Your task to perform on an android device: Turn off the flashlight Image 0: 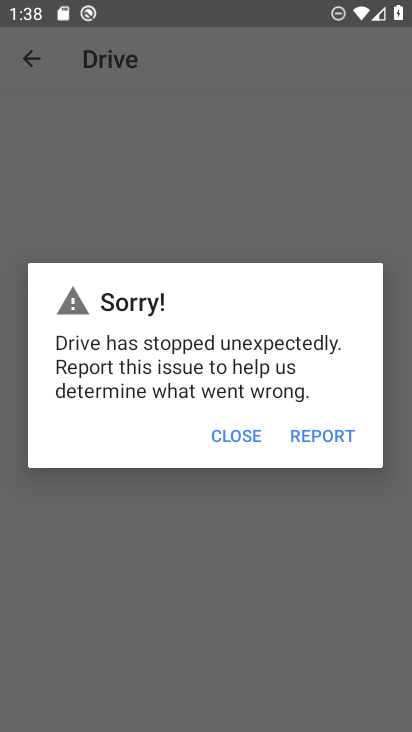
Step 0: press home button
Your task to perform on an android device: Turn off the flashlight Image 1: 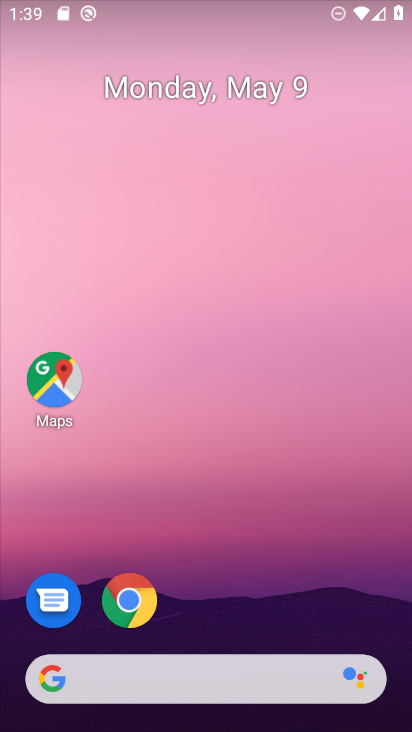
Step 1: task complete